Your task to perform on an android device: Go to wifi settings Image 0: 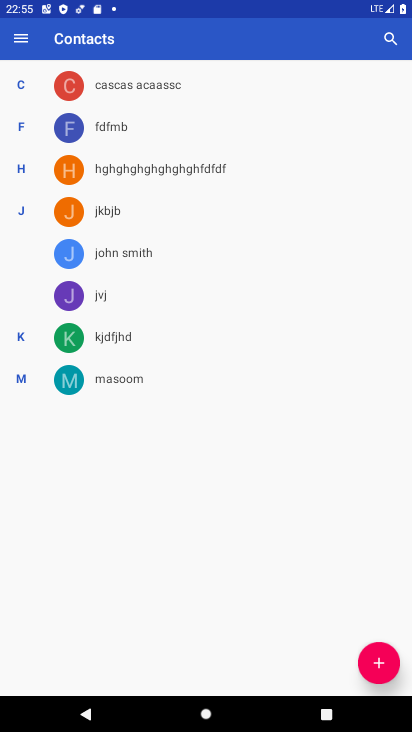
Step 0: press home button
Your task to perform on an android device: Go to wifi settings Image 1: 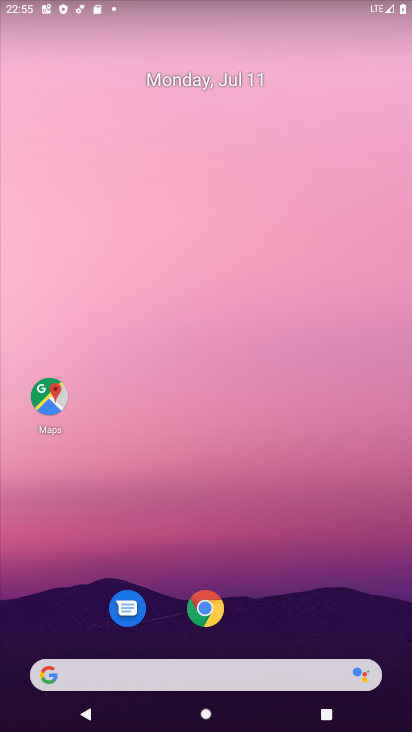
Step 1: drag from (16, 703) to (108, 6)
Your task to perform on an android device: Go to wifi settings Image 2: 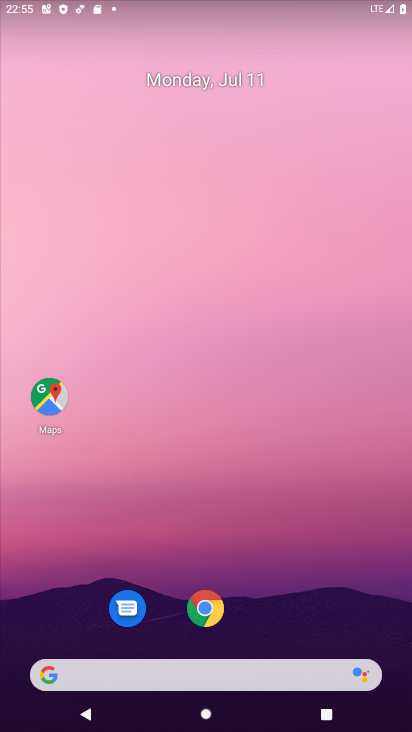
Step 2: drag from (48, 691) to (200, 64)
Your task to perform on an android device: Go to wifi settings Image 3: 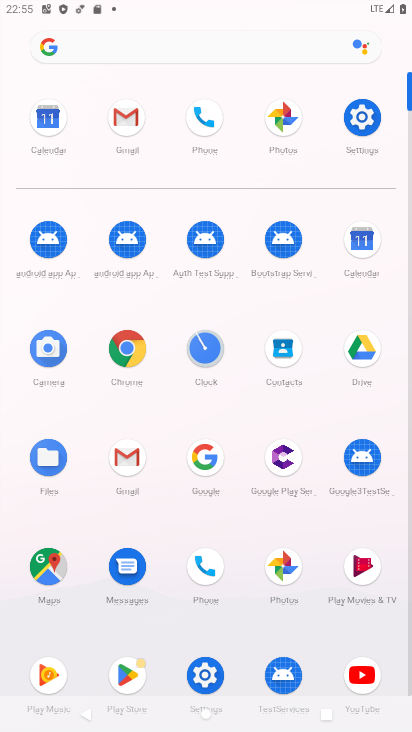
Step 3: click (199, 664)
Your task to perform on an android device: Go to wifi settings Image 4: 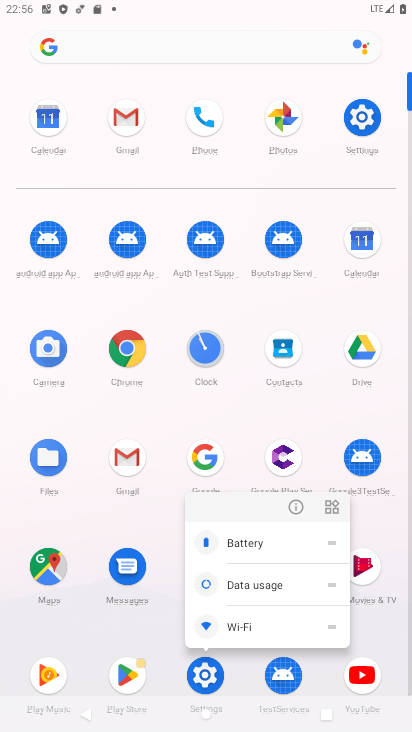
Step 4: click (197, 688)
Your task to perform on an android device: Go to wifi settings Image 5: 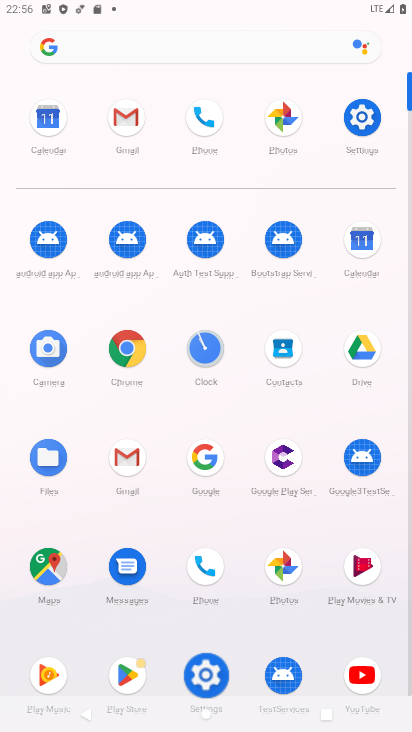
Step 5: click (196, 685)
Your task to perform on an android device: Go to wifi settings Image 6: 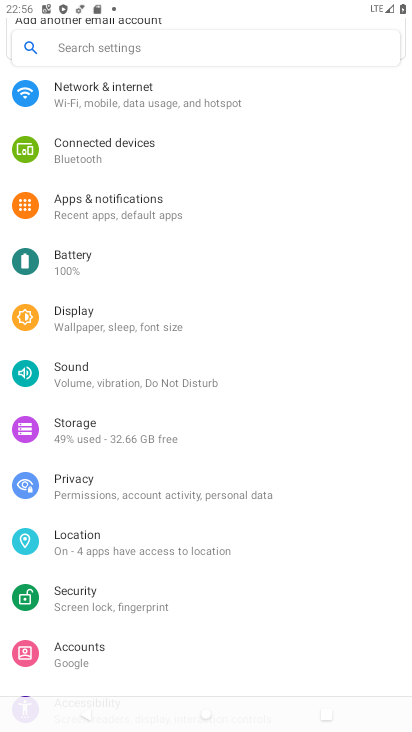
Step 6: click (138, 81)
Your task to perform on an android device: Go to wifi settings Image 7: 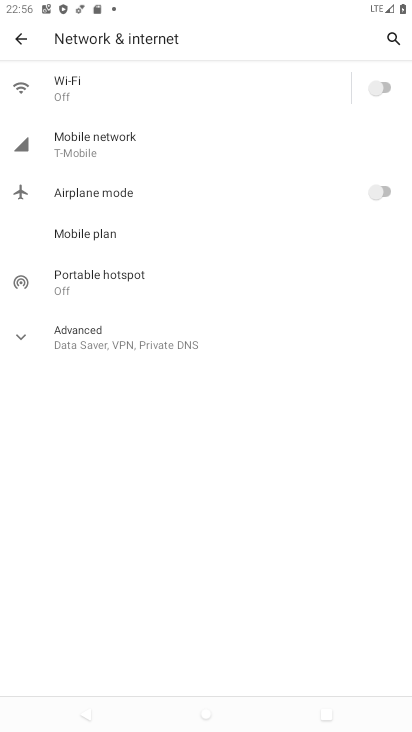
Step 7: task complete